Your task to perform on an android device: Go to privacy settings Image 0: 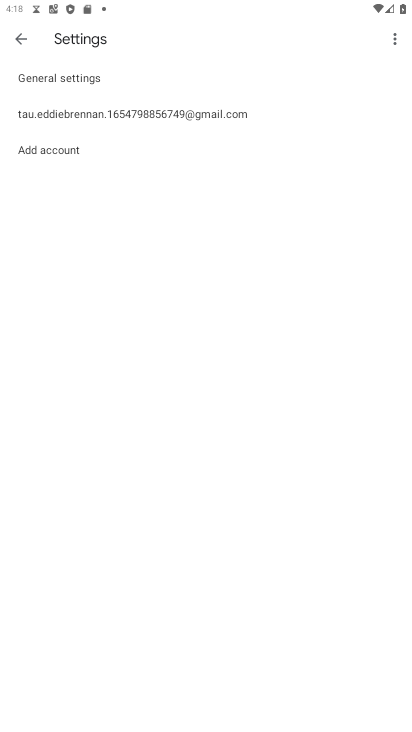
Step 0: press home button
Your task to perform on an android device: Go to privacy settings Image 1: 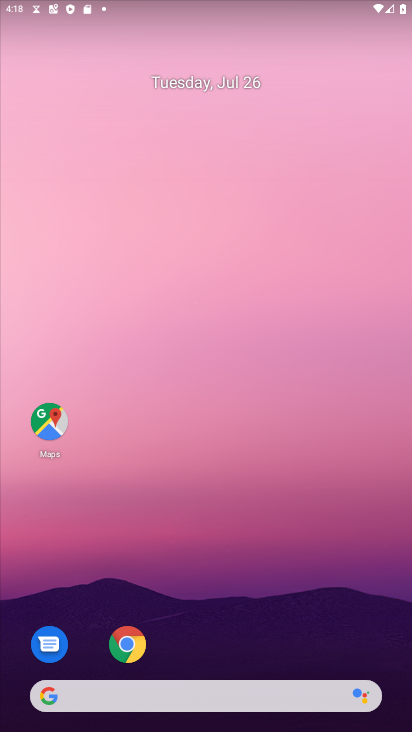
Step 1: drag from (263, 637) to (187, 210)
Your task to perform on an android device: Go to privacy settings Image 2: 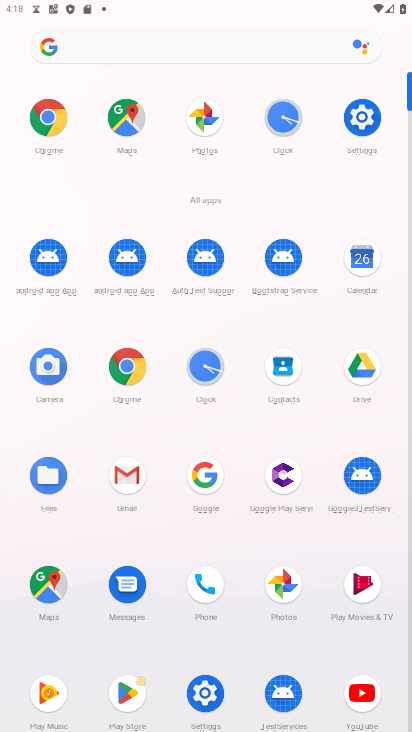
Step 2: click (359, 104)
Your task to perform on an android device: Go to privacy settings Image 3: 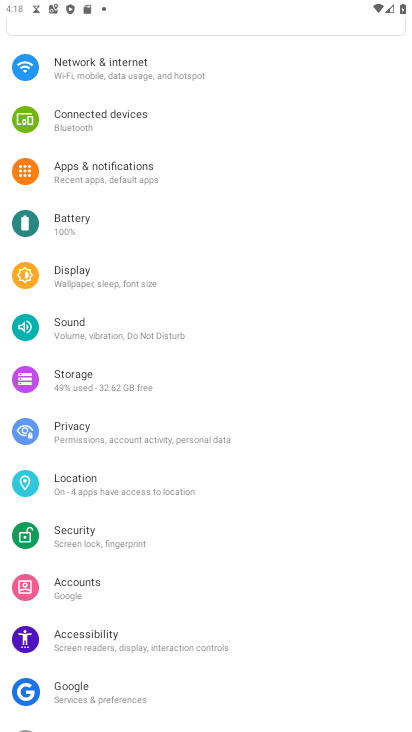
Step 3: click (197, 437)
Your task to perform on an android device: Go to privacy settings Image 4: 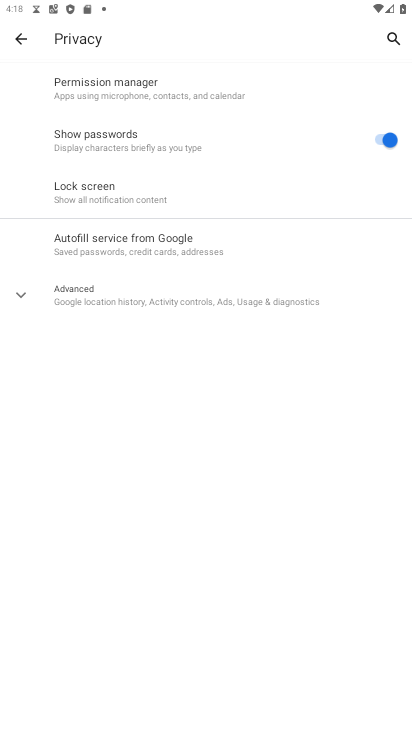
Step 4: task complete